Your task to perform on an android device: turn off notifications settings in the gmail app Image 0: 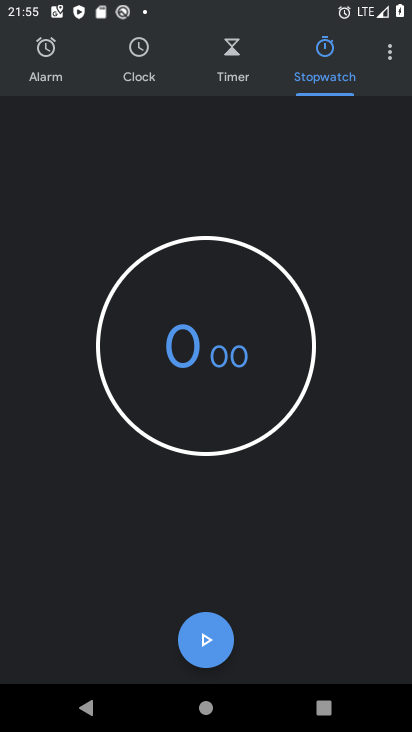
Step 0: click (383, 53)
Your task to perform on an android device: turn off notifications settings in the gmail app Image 1: 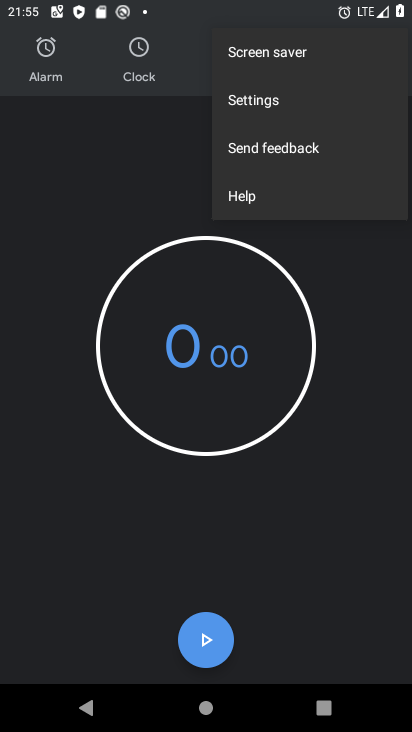
Step 1: press home button
Your task to perform on an android device: turn off notifications settings in the gmail app Image 2: 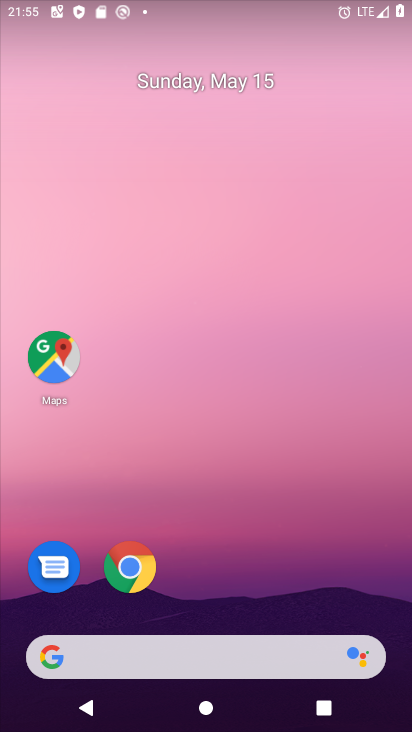
Step 2: drag from (178, 716) to (320, 61)
Your task to perform on an android device: turn off notifications settings in the gmail app Image 3: 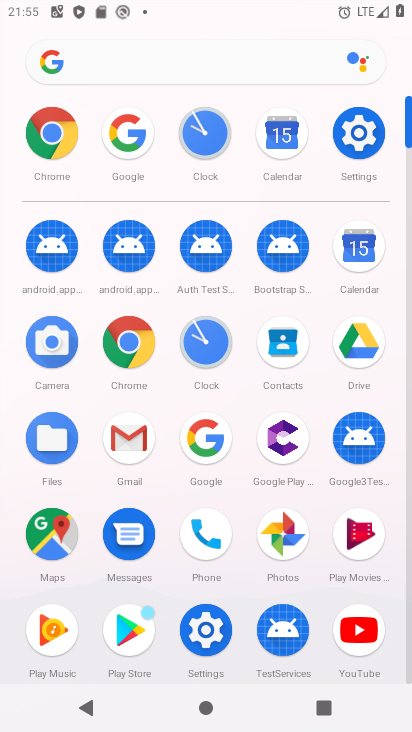
Step 3: click (130, 449)
Your task to perform on an android device: turn off notifications settings in the gmail app Image 4: 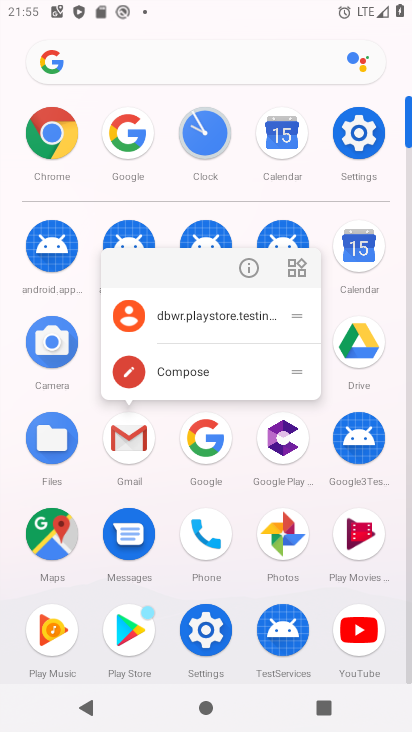
Step 4: click (242, 271)
Your task to perform on an android device: turn off notifications settings in the gmail app Image 5: 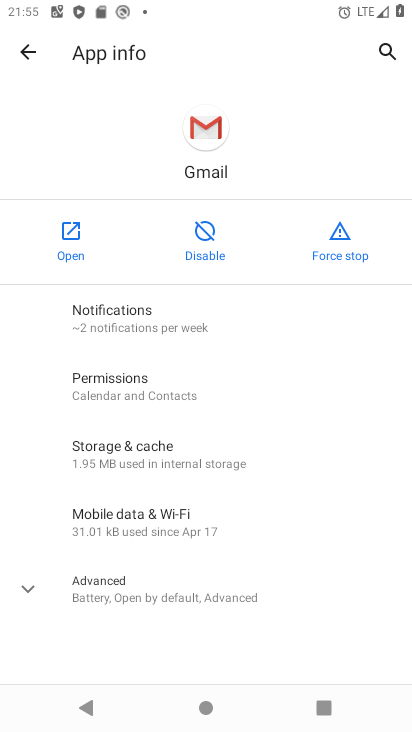
Step 5: click (147, 327)
Your task to perform on an android device: turn off notifications settings in the gmail app Image 6: 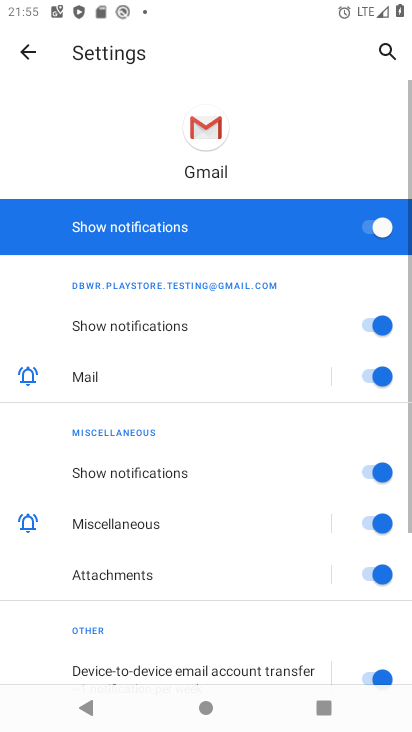
Step 6: click (376, 222)
Your task to perform on an android device: turn off notifications settings in the gmail app Image 7: 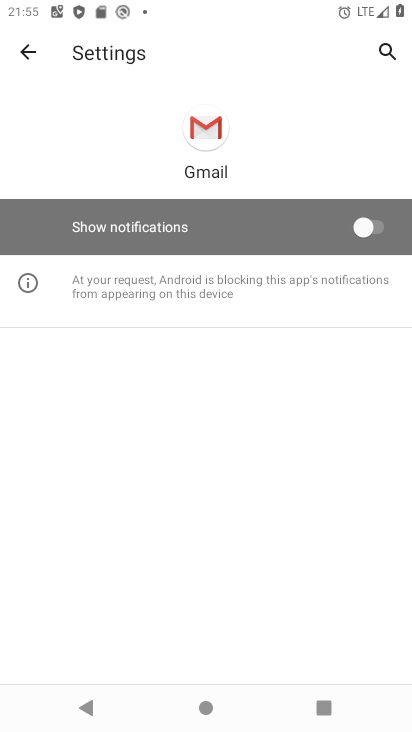
Step 7: task complete